Your task to perform on an android device: What's the weather? Image 0: 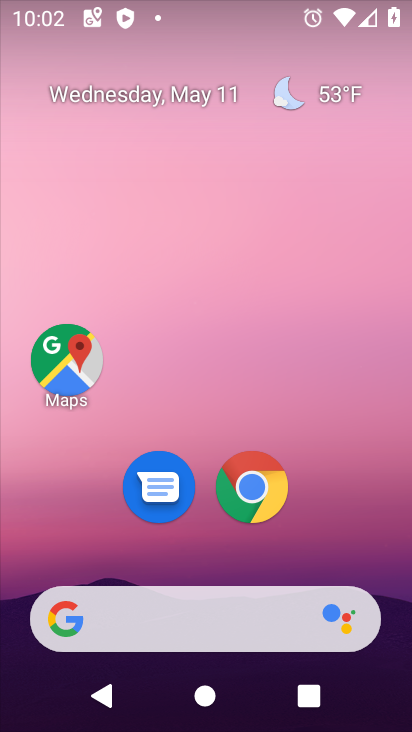
Step 0: drag from (216, 563) to (202, 166)
Your task to perform on an android device: What's the weather? Image 1: 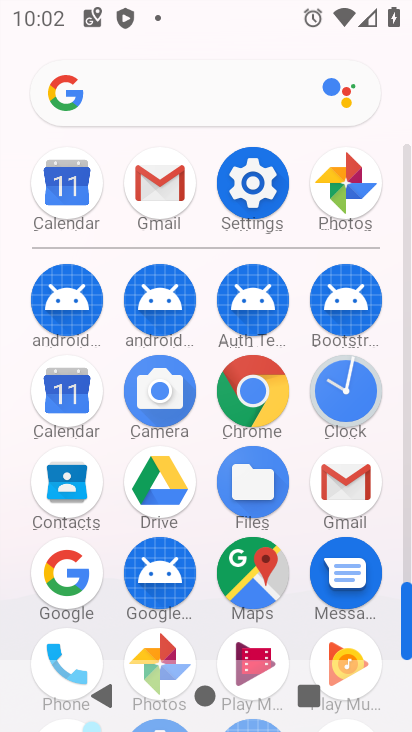
Step 1: click (67, 611)
Your task to perform on an android device: What's the weather? Image 2: 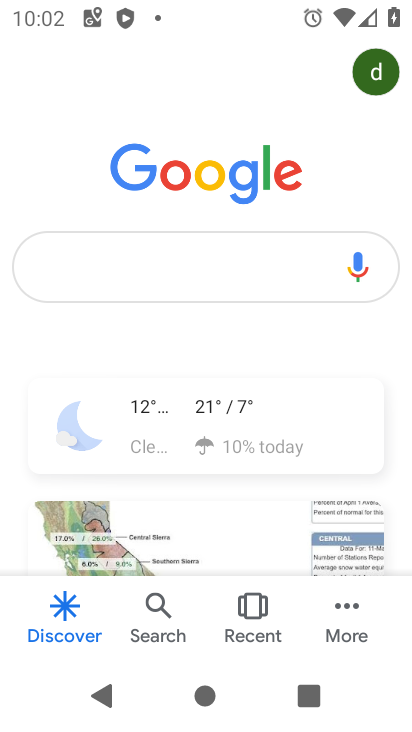
Step 2: click (162, 284)
Your task to perform on an android device: What's the weather? Image 3: 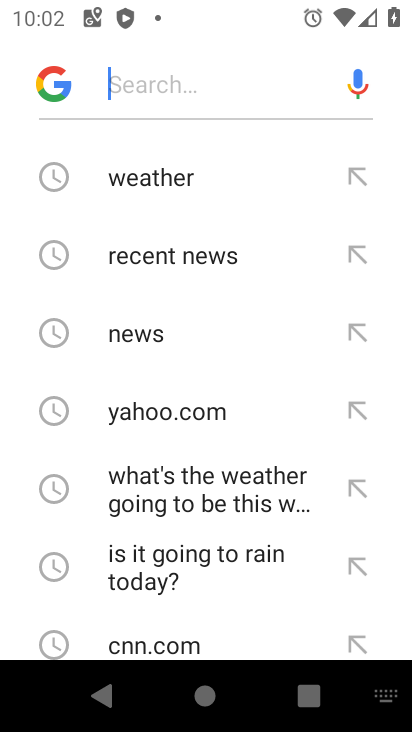
Step 3: click (164, 164)
Your task to perform on an android device: What's the weather? Image 4: 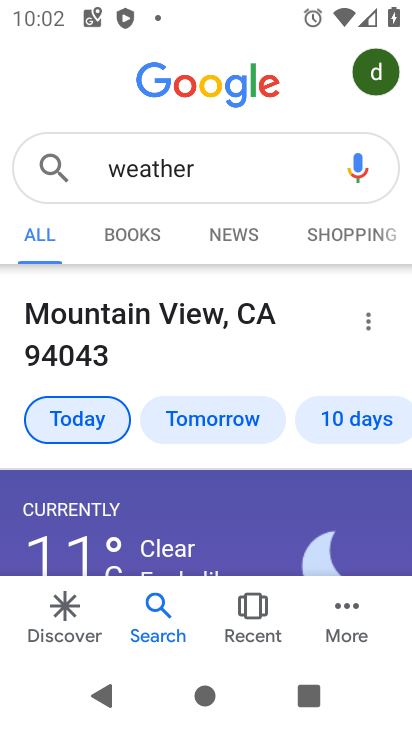
Step 4: task complete